Your task to perform on an android device: read, delete, or share a saved page in the chrome app Image 0: 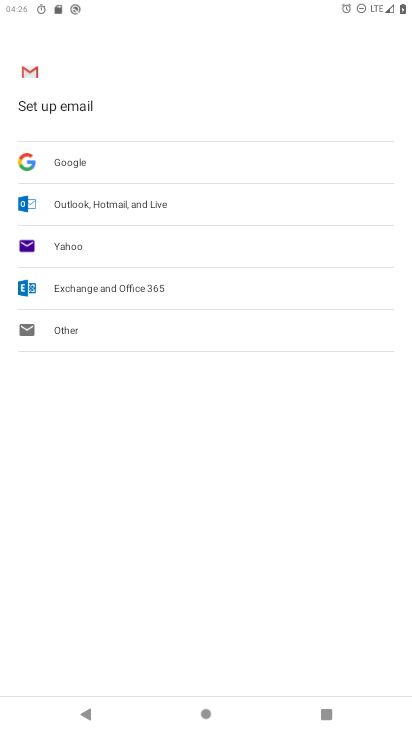
Step 0: press home button
Your task to perform on an android device: read, delete, or share a saved page in the chrome app Image 1: 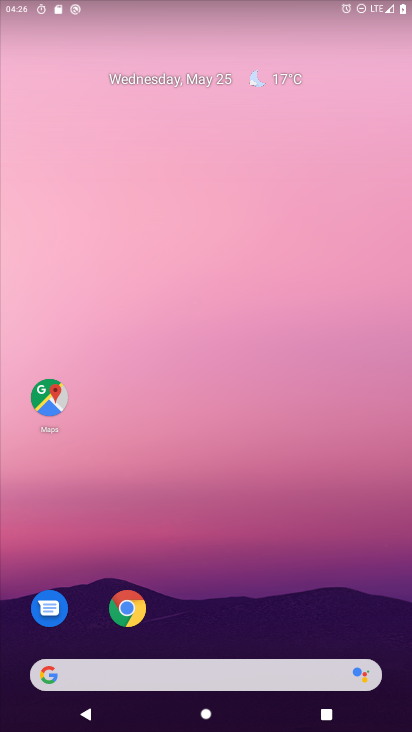
Step 1: drag from (241, 506) to (265, 100)
Your task to perform on an android device: read, delete, or share a saved page in the chrome app Image 2: 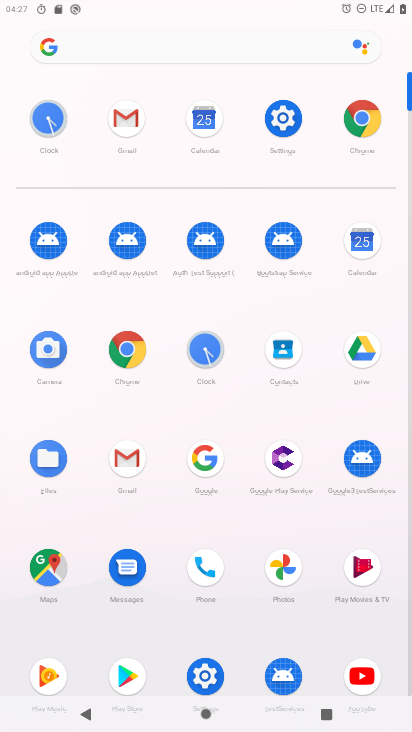
Step 2: click (123, 346)
Your task to perform on an android device: read, delete, or share a saved page in the chrome app Image 3: 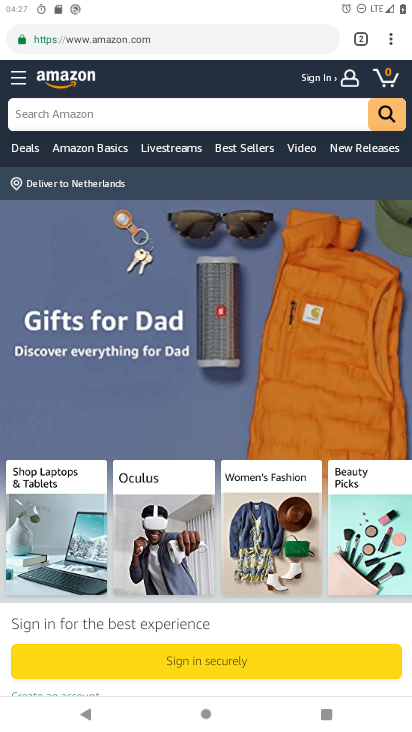
Step 3: task complete